Your task to perform on an android device: all mails in gmail Image 0: 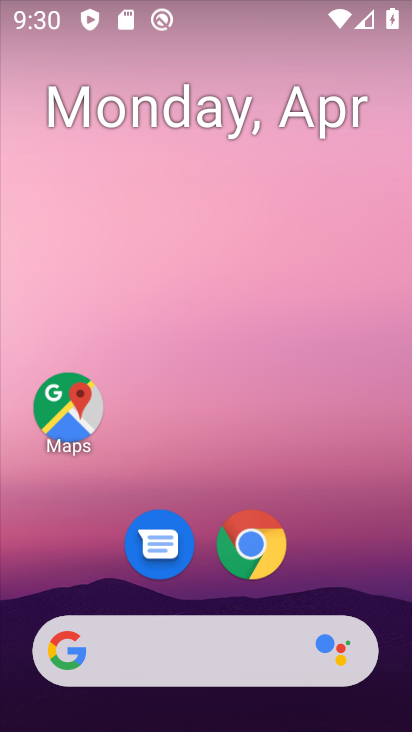
Step 0: drag from (354, 577) to (278, 73)
Your task to perform on an android device: all mails in gmail Image 1: 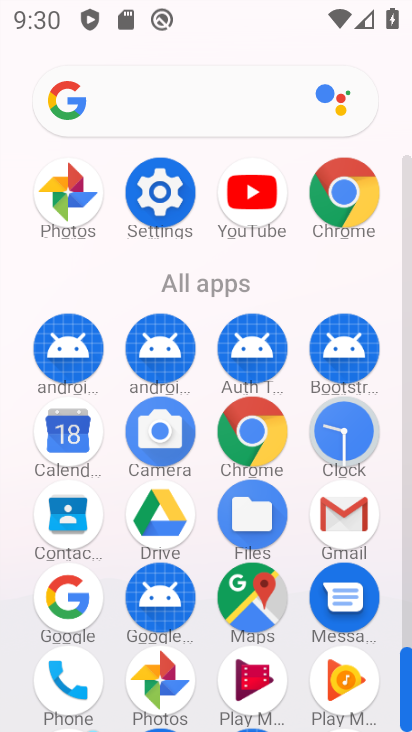
Step 1: click (354, 520)
Your task to perform on an android device: all mails in gmail Image 2: 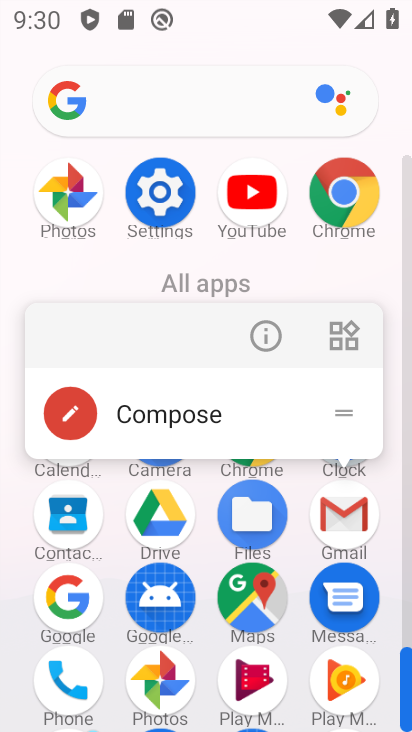
Step 2: click (354, 520)
Your task to perform on an android device: all mails in gmail Image 3: 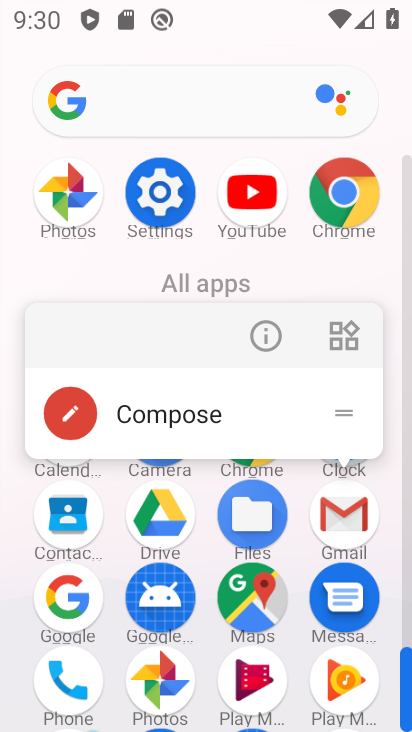
Step 3: click (349, 515)
Your task to perform on an android device: all mails in gmail Image 4: 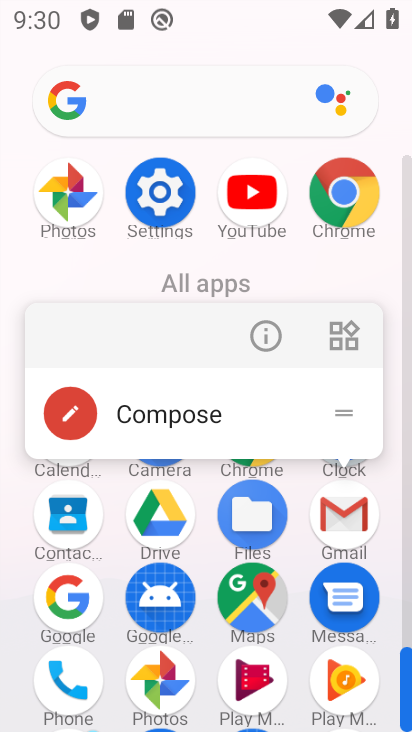
Step 4: click (339, 506)
Your task to perform on an android device: all mails in gmail Image 5: 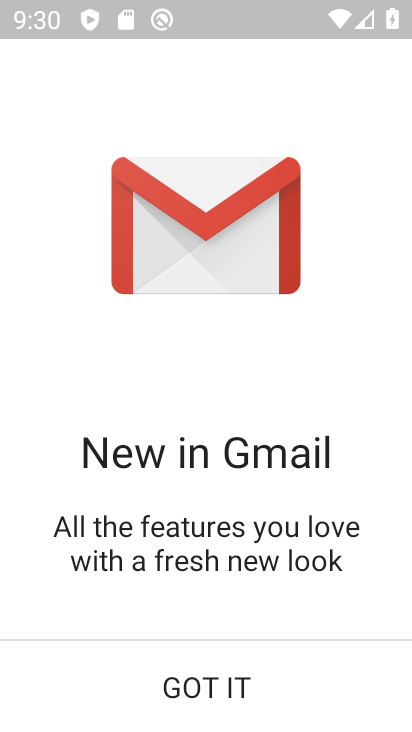
Step 5: click (207, 698)
Your task to perform on an android device: all mails in gmail Image 6: 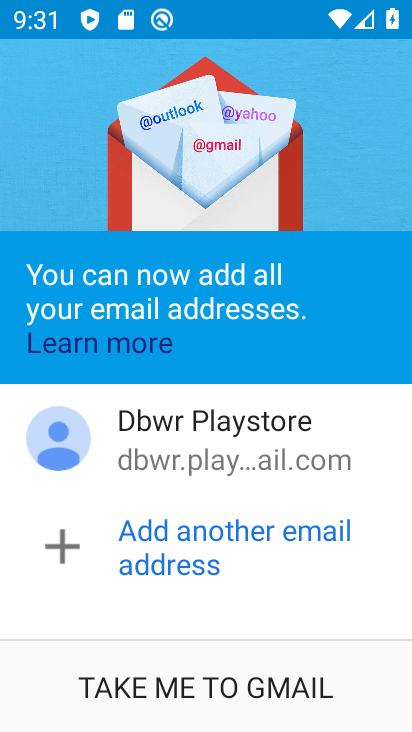
Step 6: click (207, 698)
Your task to perform on an android device: all mails in gmail Image 7: 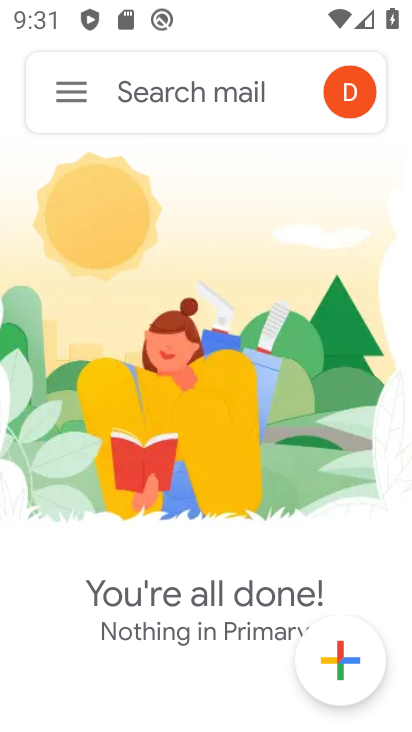
Step 7: task complete